Your task to perform on an android device: Empty the shopping cart on ebay. Add "bose soundlink" to the cart on ebay Image 0: 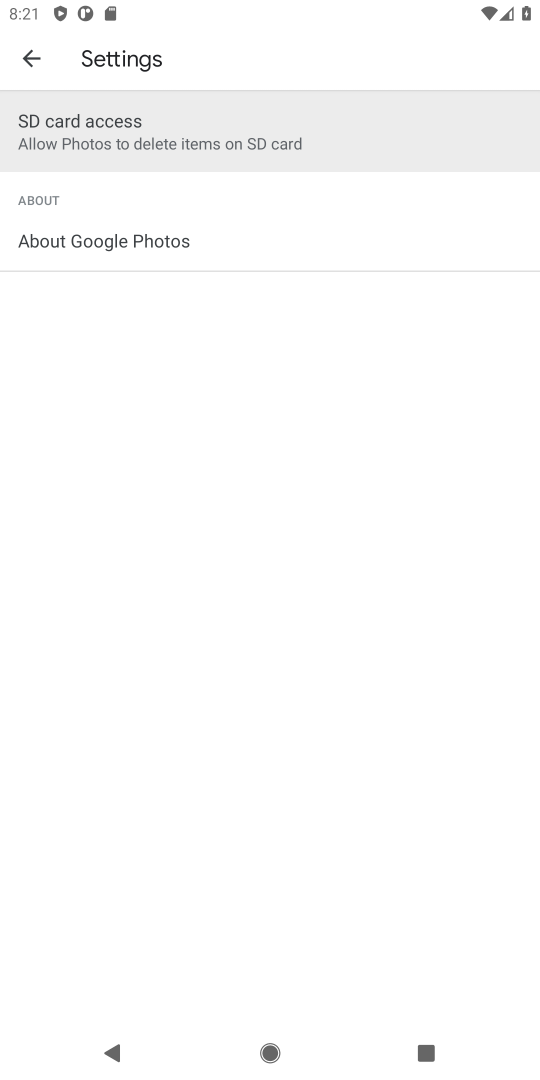
Step 0: press home button
Your task to perform on an android device: Empty the shopping cart on ebay. Add "bose soundlink" to the cart on ebay Image 1: 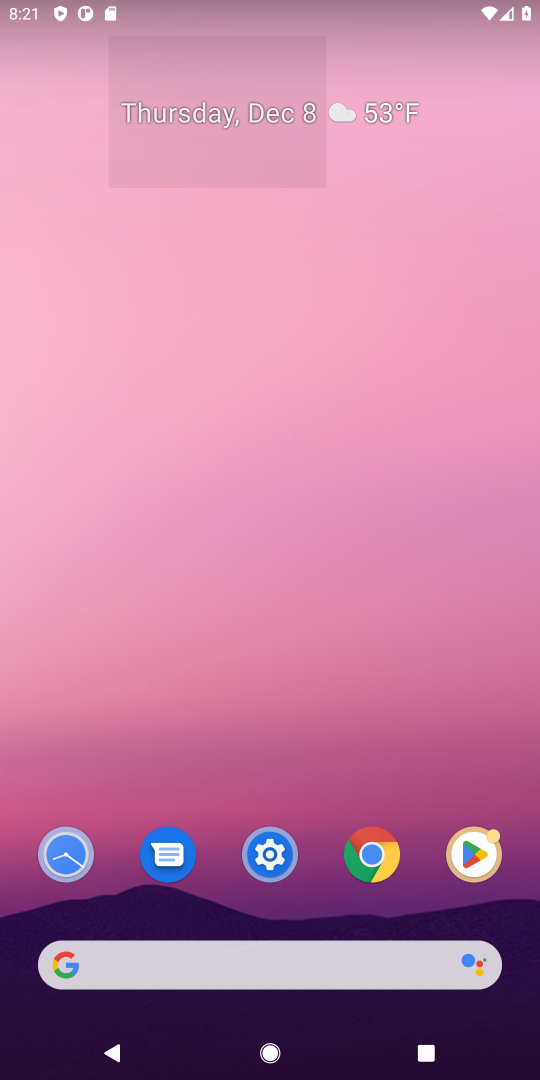
Step 1: click (98, 964)
Your task to perform on an android device: Empty the shopping cart on ebay. Add "bose soundlink" to the cart on ebay Image 2: 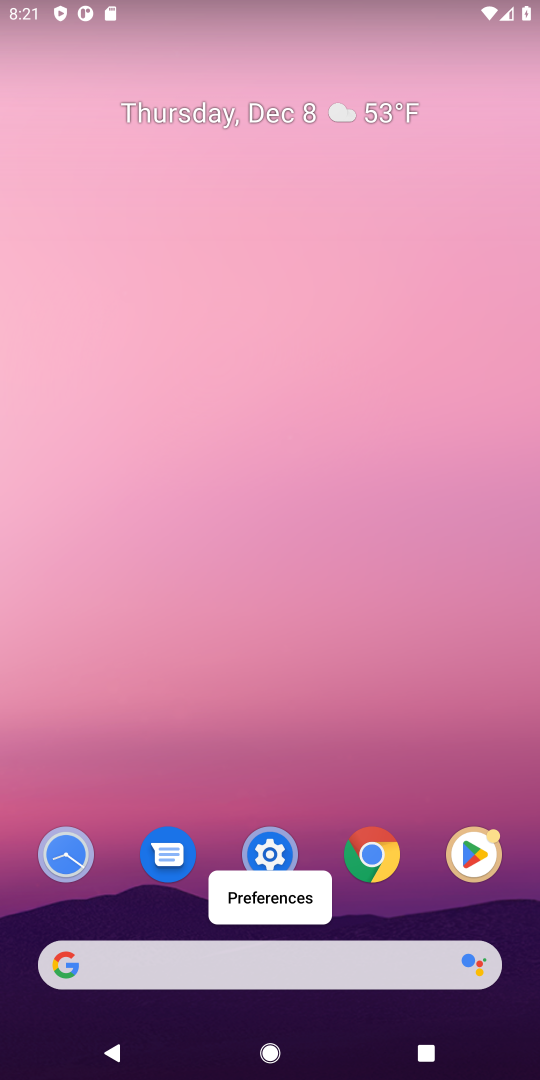
Step 2: click (85, 953)
Your task to perform on an android device: Empty the shopping cart on ebay. Add "bose soundlink" to the cart on ebay Image 3: 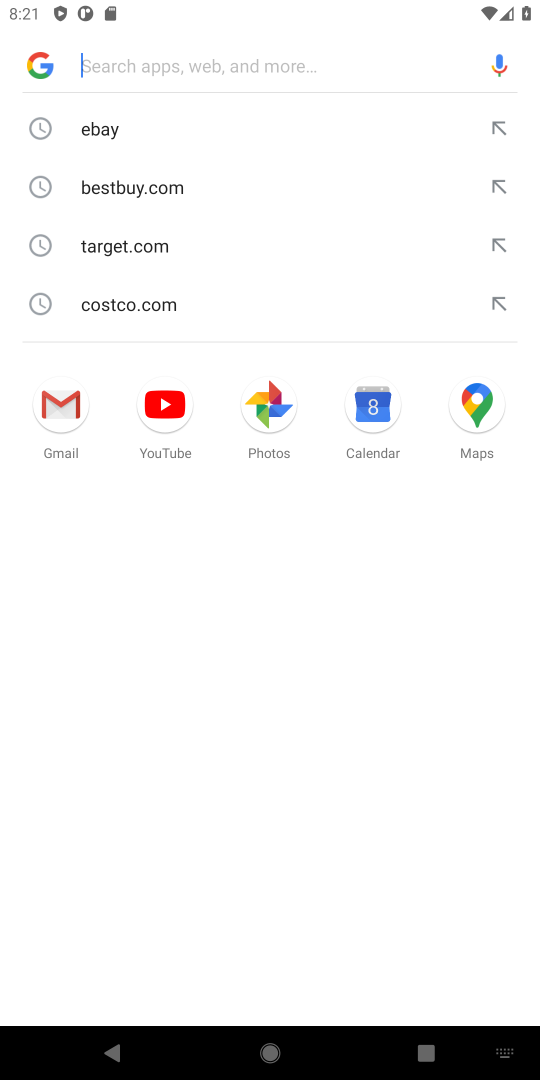
Step 3: type "ebay"
Your task to perform on an android device: Empty the shopping cart on ebay. Add "bose soundlink" to the cart on ebay Image 4: 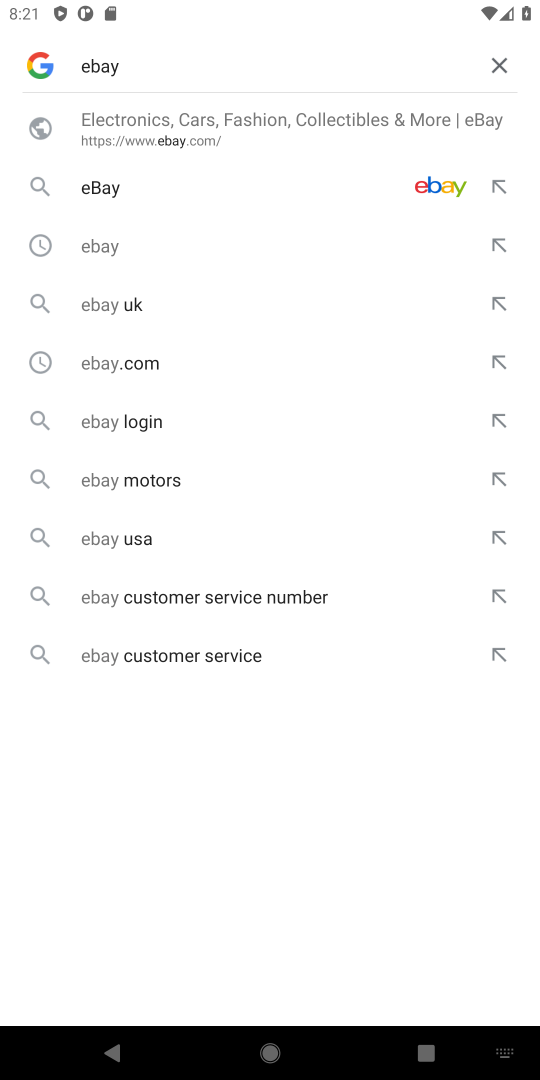
Step 4: press enter
Your task to perform on an android device: Empty the shopping cart on ebay. Add "bose soundlink" to the cart on ebay Image 5: 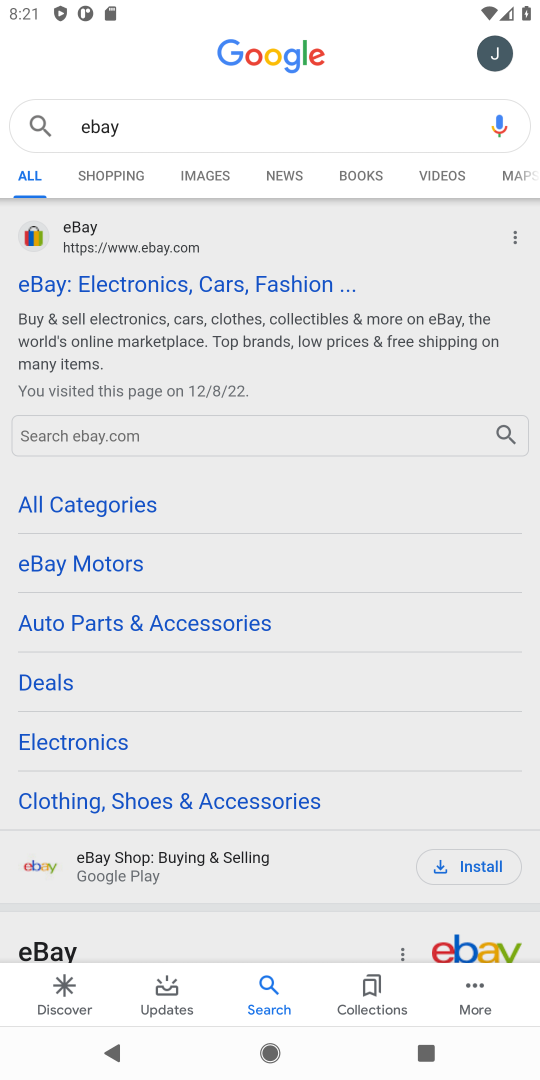
Step 5: click (206, 282)
Your task to perform on an android device: Empty the shopping cart on ebay. Add "bose soundlink" to the cart on ebay Image 6: 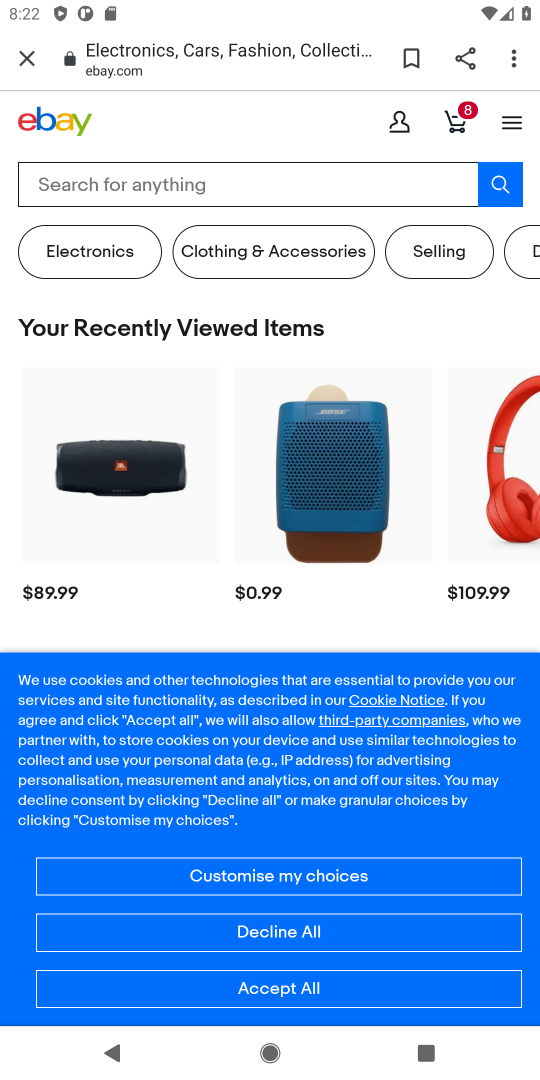
Step 6: click (457, 114)
Your task to perform on an android device: Empty the shopping cart on ebay. Add "bose soundlink" to the cart on ebay Image 7: 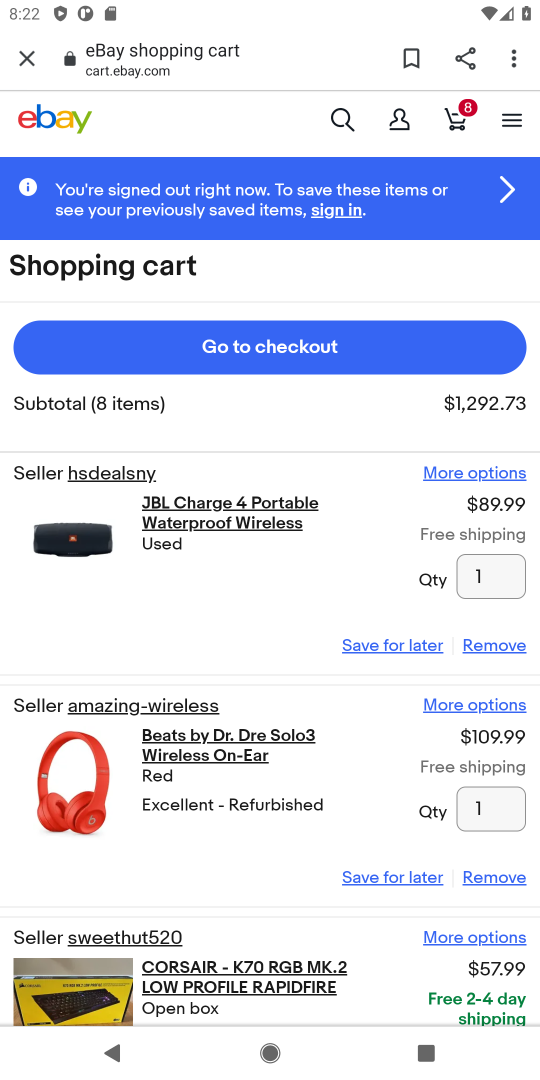
Step 7: click (501, 644)
Your task to perform on an android device: Empty the shopping cart on ebay. Add "bose soundlink" to the cart on ebay Image 8: 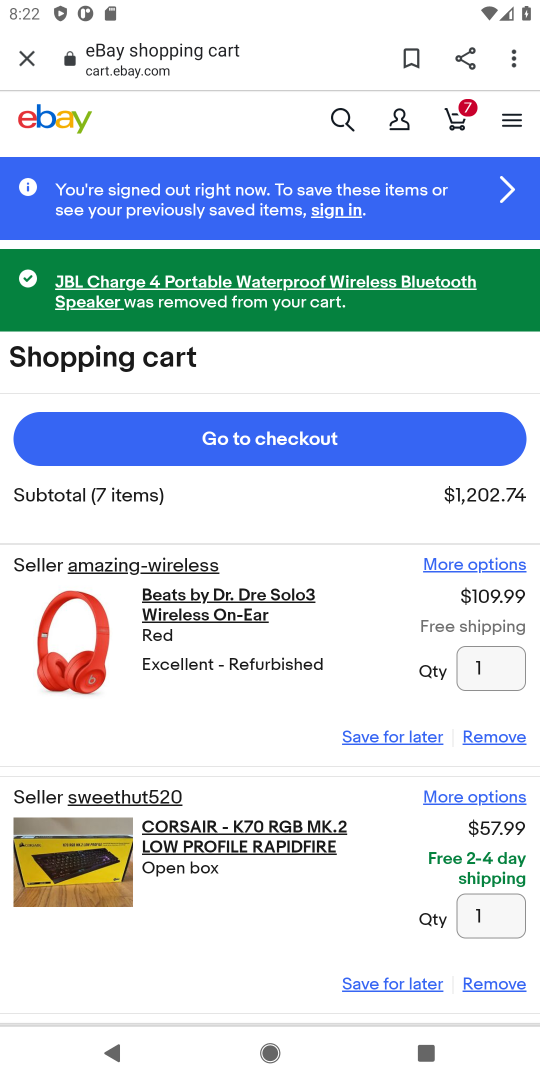
Step 8: click (483, 734)
Your task to perform on an android device: Empty the shopping cart on ebay. Add "bose soundlink" to the cart on ebay Image 9: 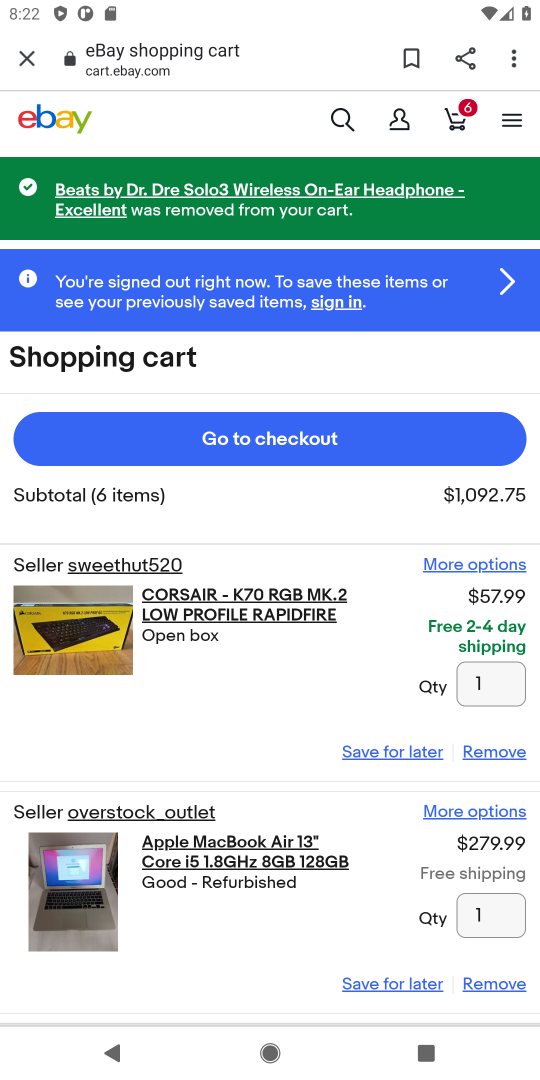
Step 9: click (491, 750)
Your task to perform on an android device: Empty the shopping cart on ebay. Add "bose soundlink" to the cart on ebay Image 10: 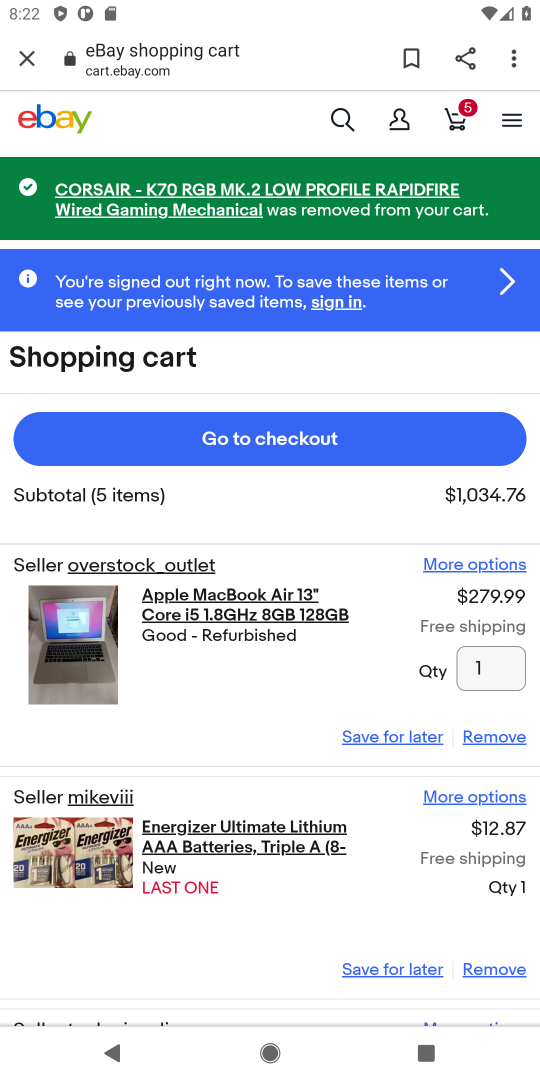
Step 10: click (479, 735)
Your task to perform on an android device: Empty the shopping cart on ebay. Add "bose soundlink" to the cart on ebay Image 11: 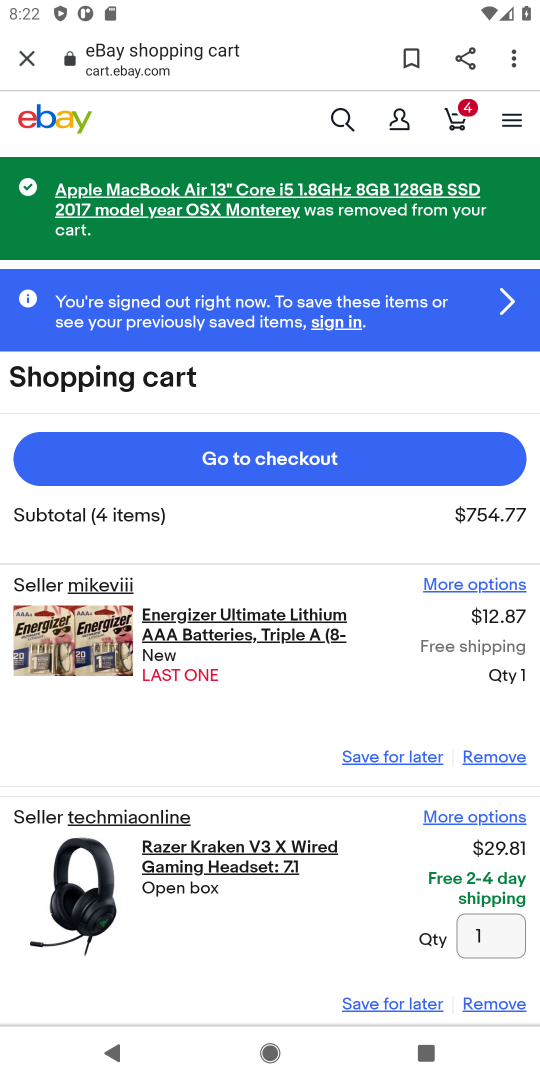
Step 11: click (496, 762)
Your task to perform on an android device: Empty the shopping cart on ebay. Add "bose soundlink" to the cart on ebay Image 12: 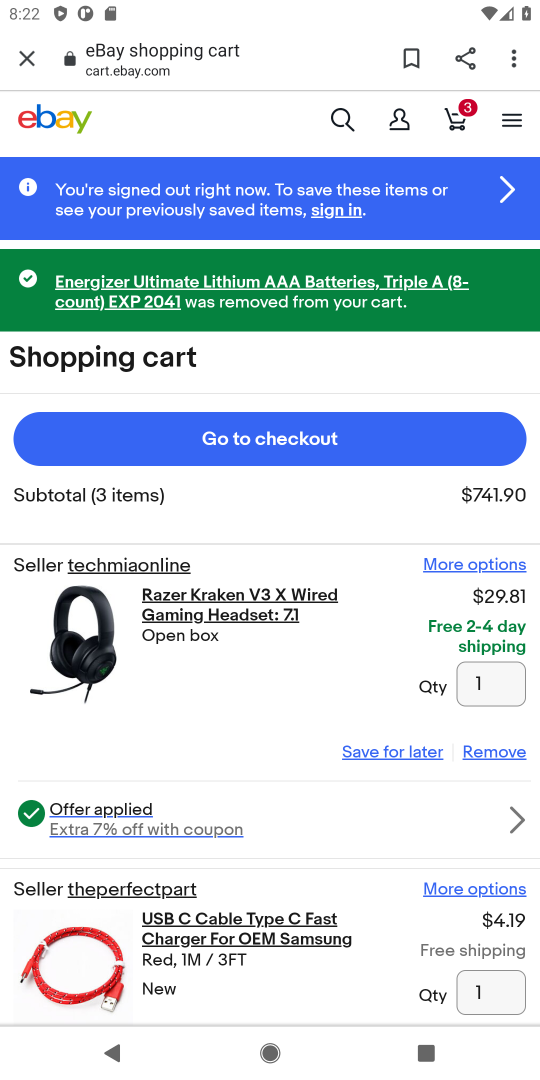
Step 12: click (506, 753)
Your task to perform on an android device: Empty the shopping cart on ebay. Add "bose soundlink" to the cart on ebay Image 13: 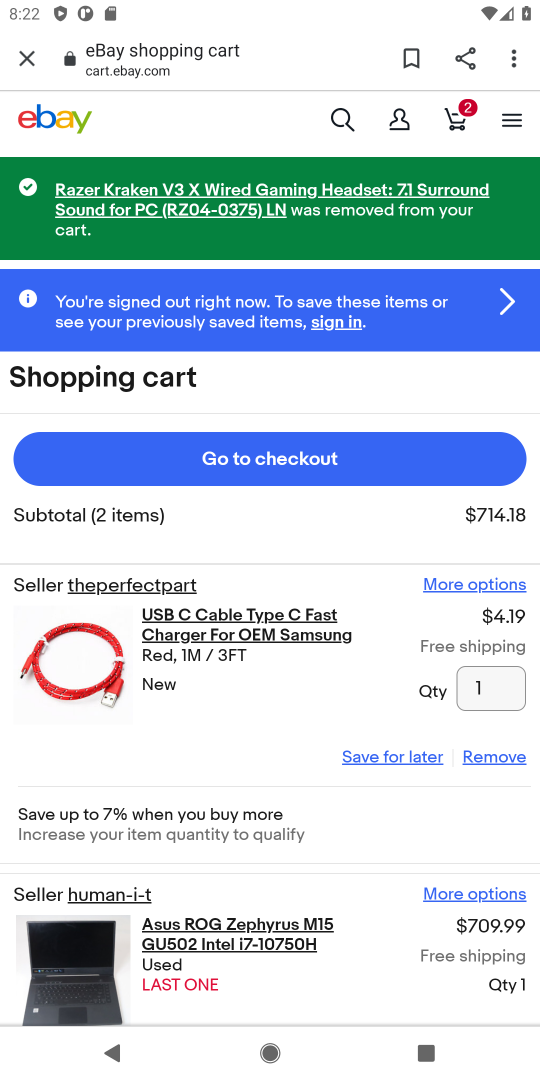
Step 13: click (509, 758)
Your task to perform on an android device: Empty the shopping cart on ebay. Add "bose soundlink" to the cart on ebay Image 14: 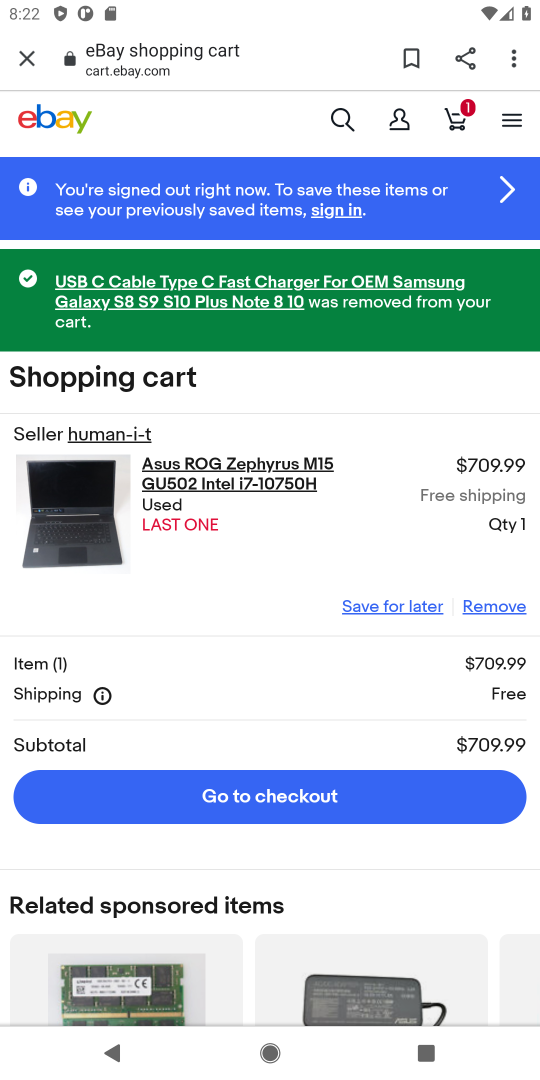
Step 14: click (500, 608)
Your task to perform on an android device: Empty the shopping cart on ebay. Add "bose soundlink" to the cart on ebay Image 15: 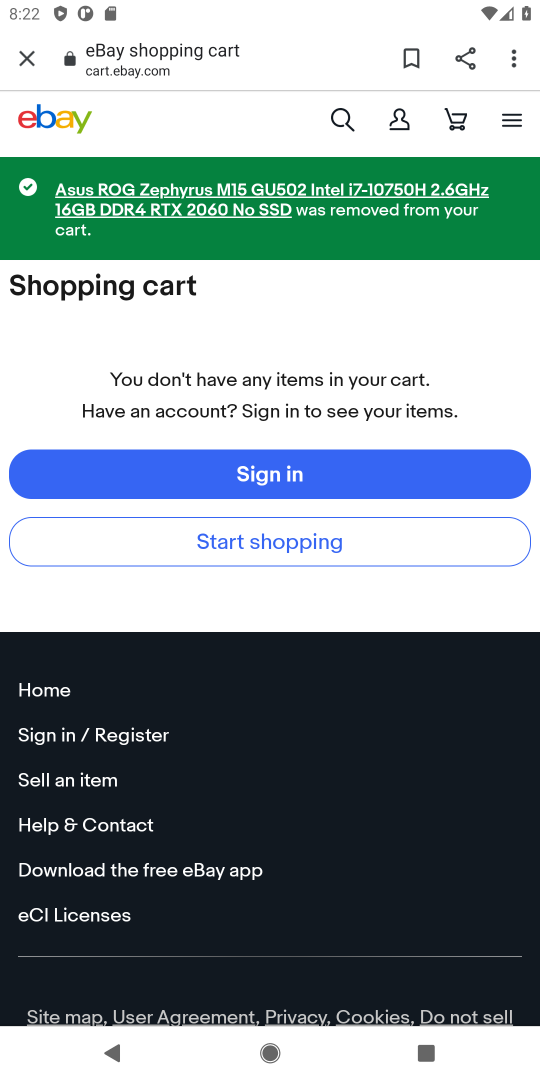
Step 15: click (341, 114)
Your task to perform on an android device: Empty the shopping cart on ebay. Add "bose soundlink" to the cart on ebay Image 16: 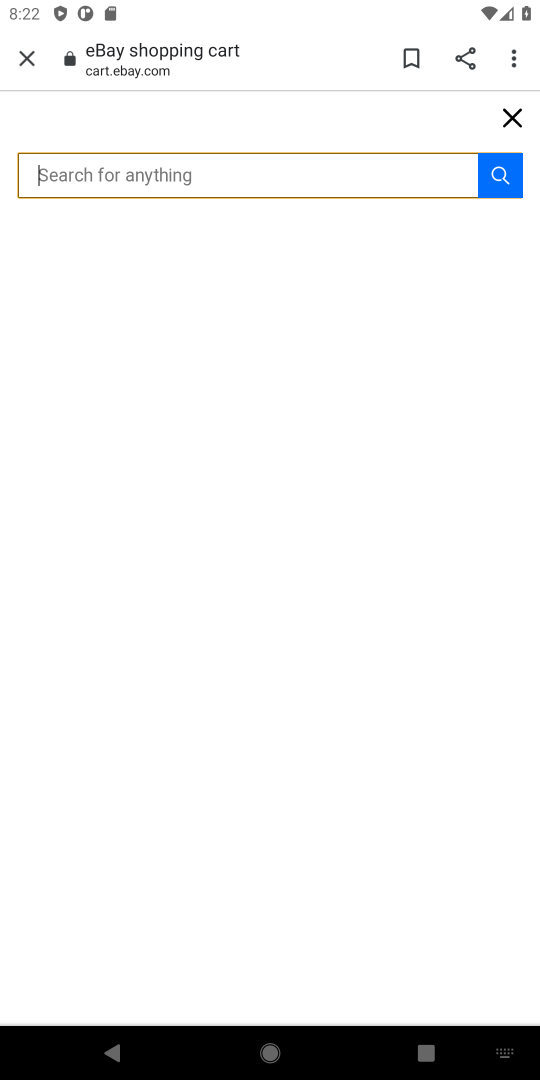
Step 16: type "bose soundlink"
Your task to perform on an android device: Empty the shopping cart on ebay. Add "bose soundlink" to the cart on ebay Image 17: 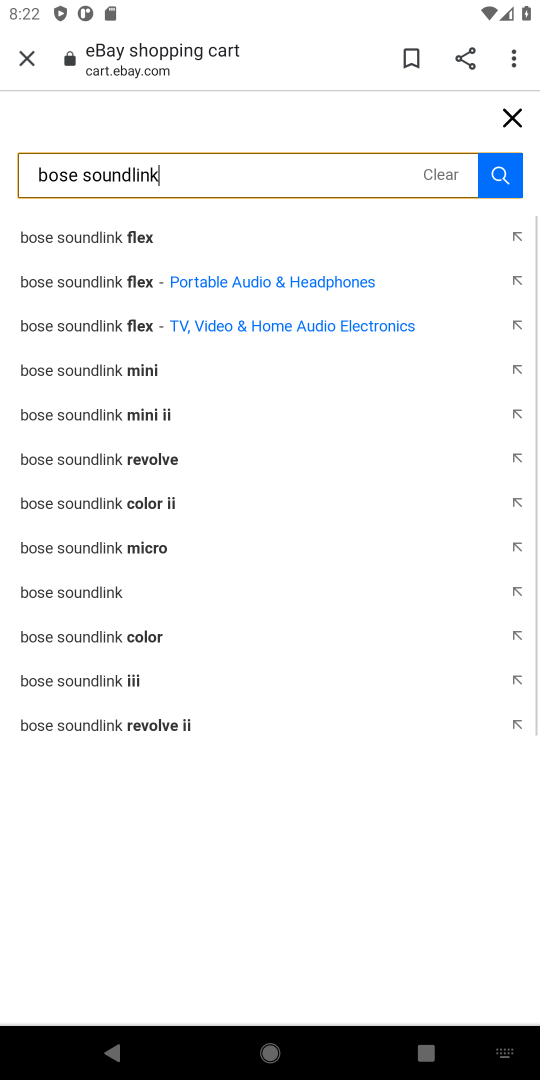
Step 17: press enter
Your task to perform on an android device: Empty the shopping cart on ebay. Add "bose soundlink" to the cart on ebay Image 18: 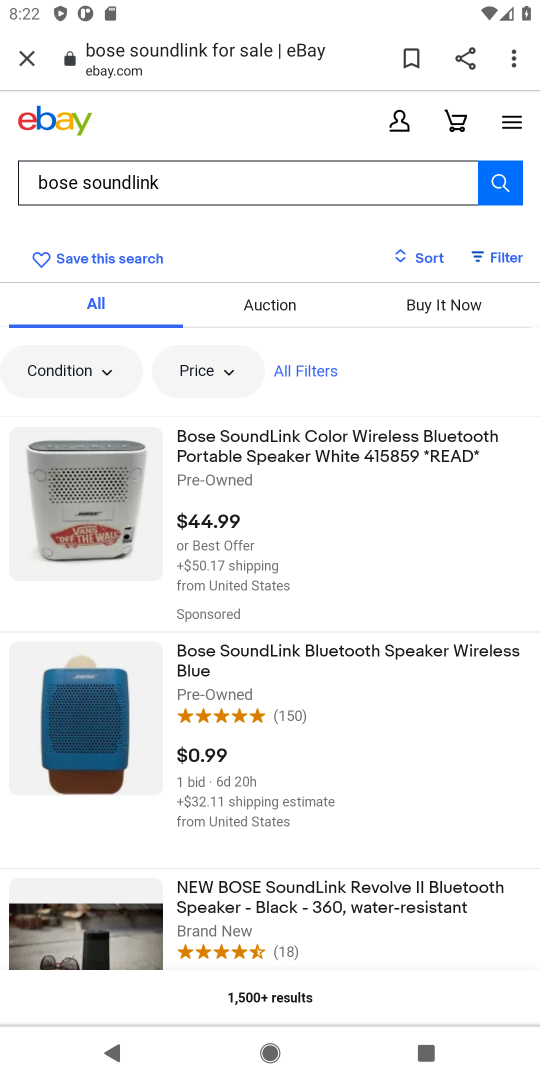
Step 18: click (265, 449)
Your task to perform on an android device: Empty the shopping cart on ebay. Add "bose soundlink" to the cart on ebay Image 19: 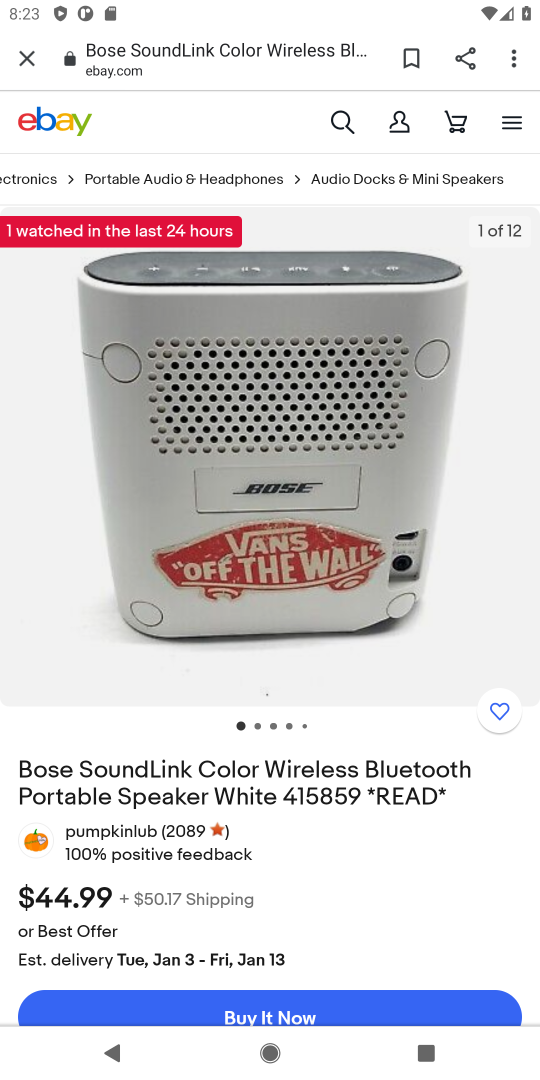
Step 19: drag from (382, 832) to (380, 375)
Your task to perform on an android device: Empty the shopping cart on ebay. Add "bose soundlink" to the cart on ebay Image 20: 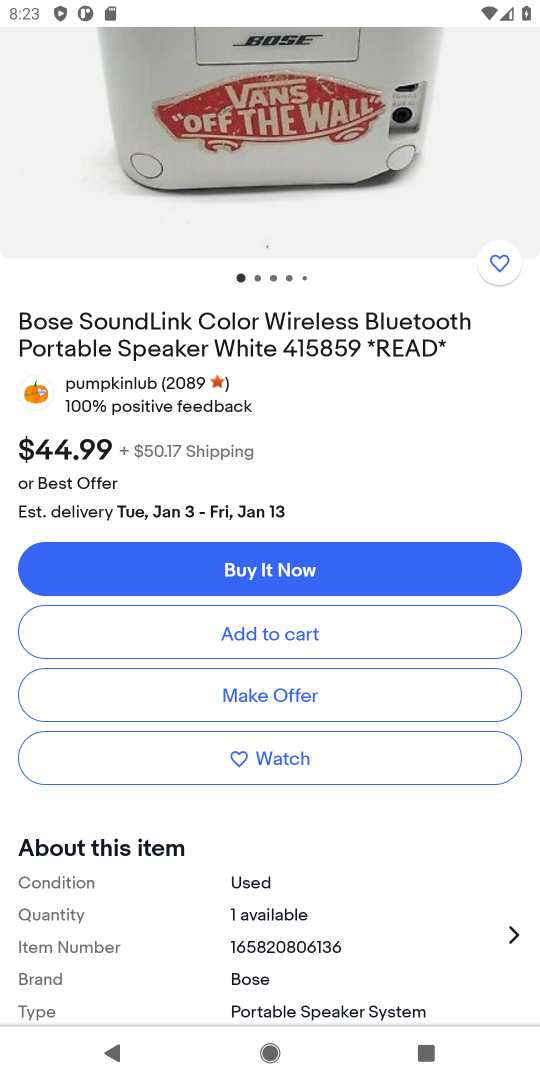
Step 20: click (254, 629)
Your task to perform on an android device: Empty the shopping cart on ebay. Add "bose soundlink" to the cart on ebay Image 21: 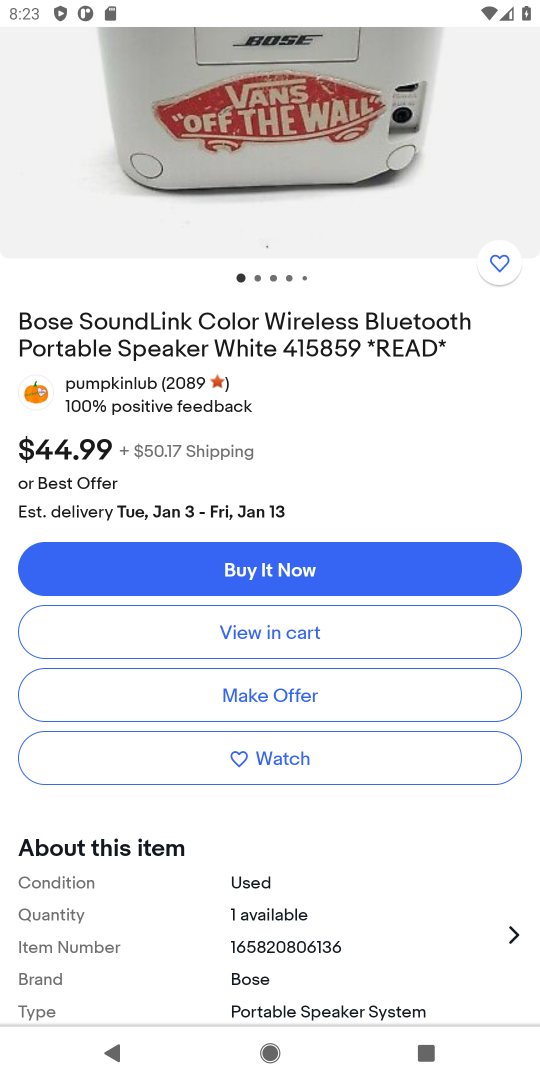
Step 21: task complete